Your task to perform on an android device: Go to sound settings Image 0: 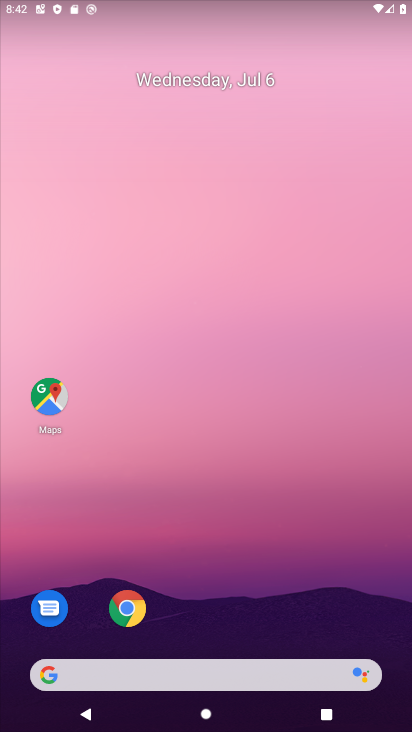
Step 0: drag from (175, 677) to (244, 245)
Your task to perform on an android device: Go to sound settings Image 1: 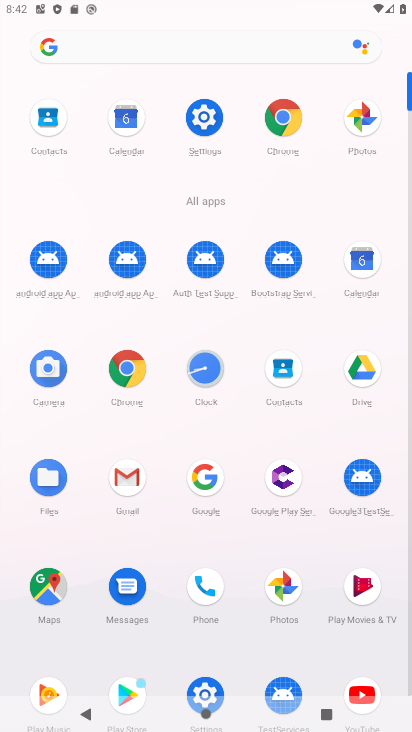
Step 1: click (205, 125)
Your task to perform on an android device: Go to sound settings Image 2: 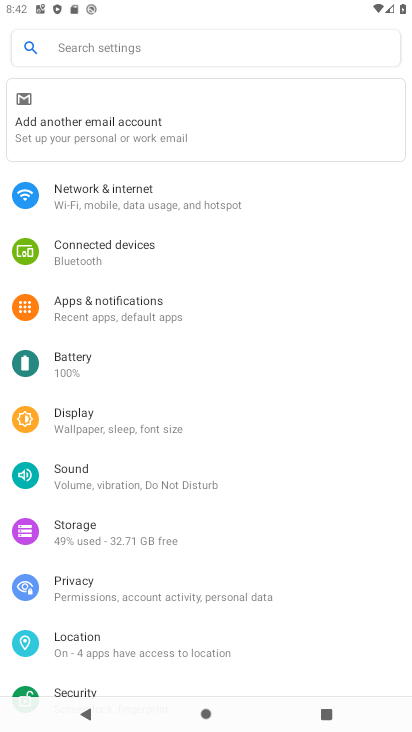
Step 2: click (94, 474)
Your task to perform on an android device: Go to sound settings Image 3: 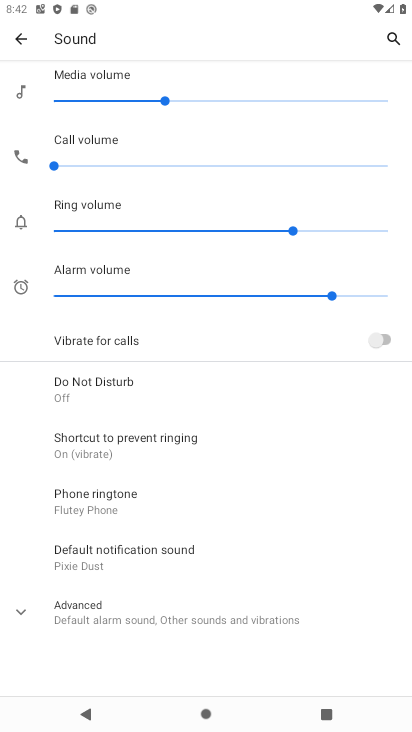
Step 3: click (101, 613)
Your task to perform on an android device: Go to sound settings Image 4: 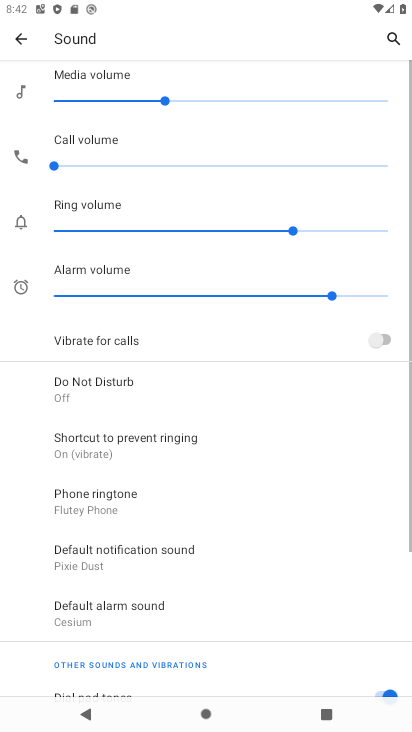
Step 4: task complete